Your task to perform on an android device: toggle data saver in the chrome app Image 0: 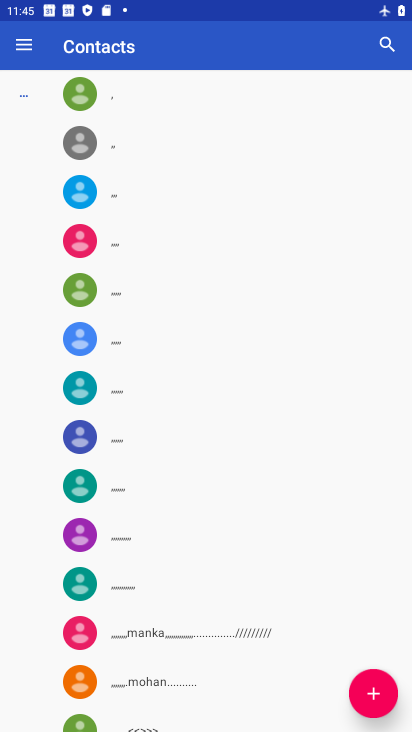
Step 0: press home button
Your task to perform on an android device: toggle data saver in the chrome app Image 1: 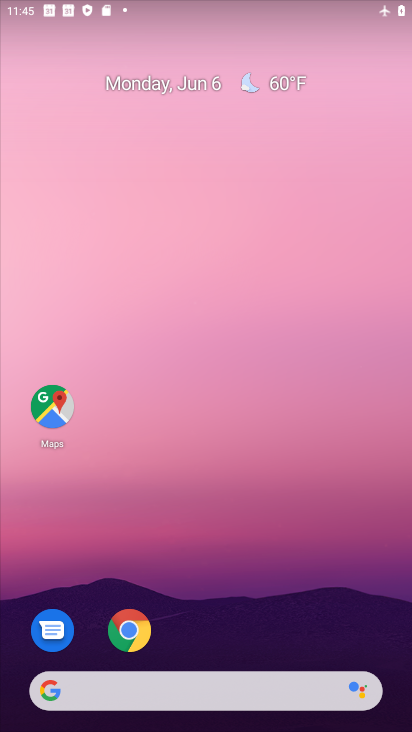
Step 1: drag from (387, 641) to (241, 67)
Your task to perform on an android device: toggle data saver in the chrome app Image 2: 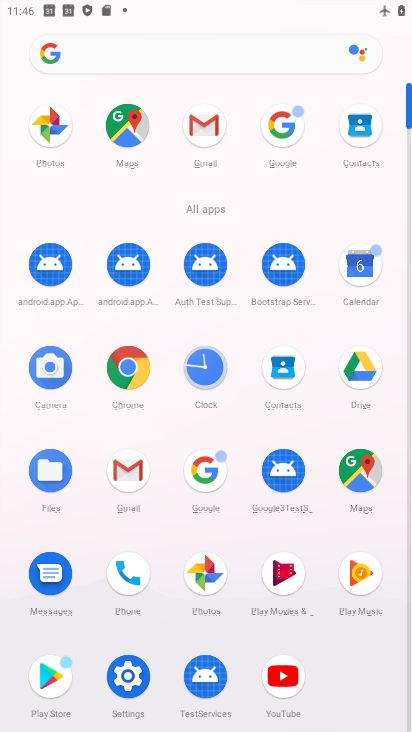
Step 2: click (129, 383)
Your task to perform on an android device: toggle data saver in the chrome app Image 3: 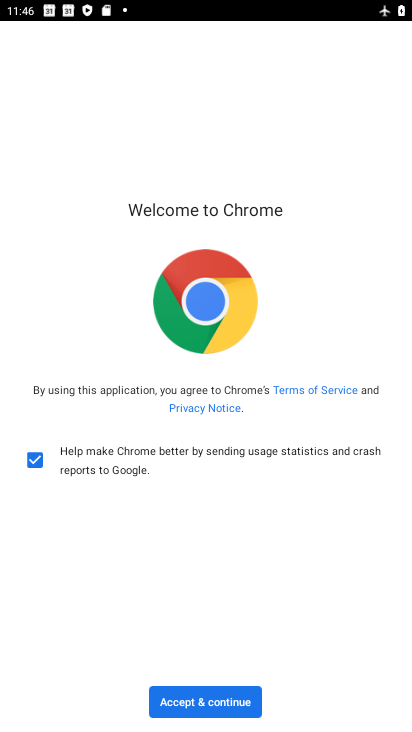
Step 3: click (213, 705)
Your task to perform on an android device: toggle data saver in the chrome app Image 4: 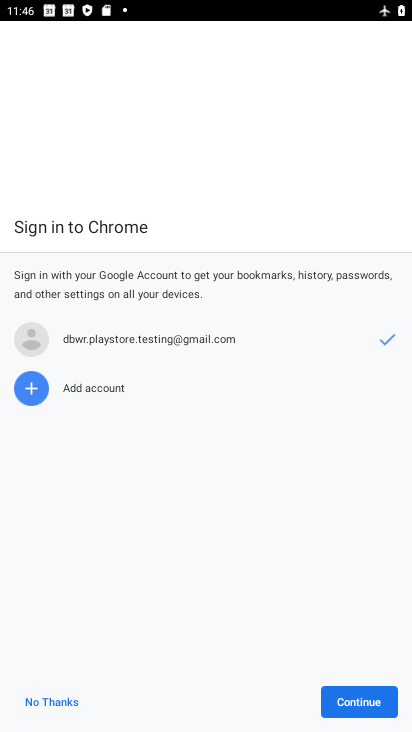
Step 4: click (348, 698)
Your task to perform on an android device: toggle data saver in the chrome app Image 5: 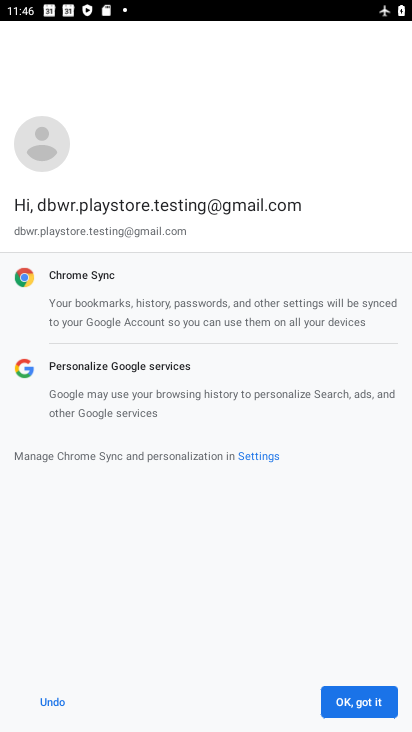
Step 5: click (348, 698)
Your task to perform on an android device: toggle data saver in the chrome app Image 6: 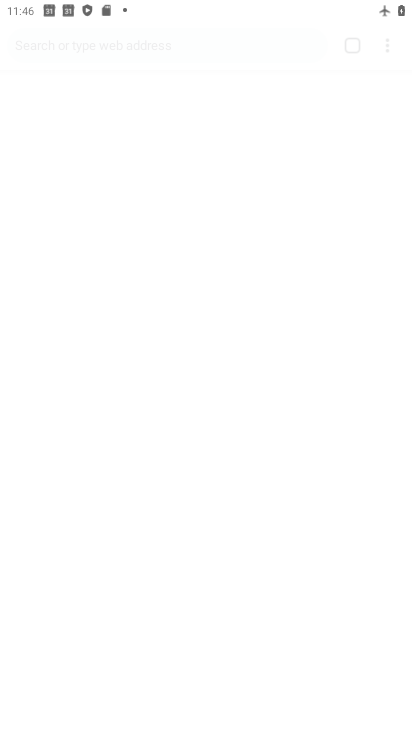
Step 6: click (348, 698)
Your task to perform on an android device: toggle data saver in the chrome app Image 7: 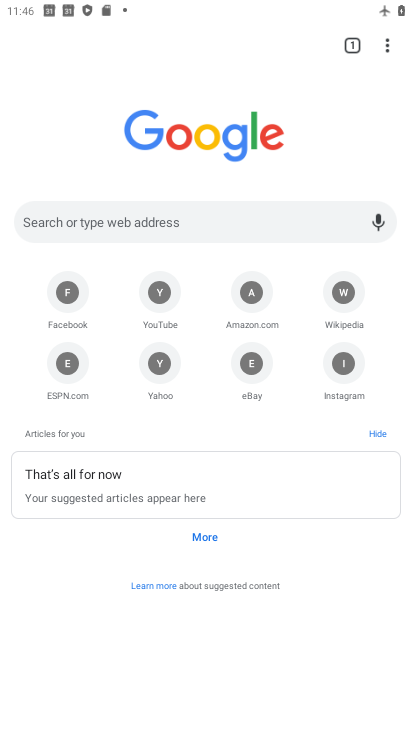
Step 7: click (386, 37)
Your task to perform on an android device: toggle data saver in the chrome app Image 8: 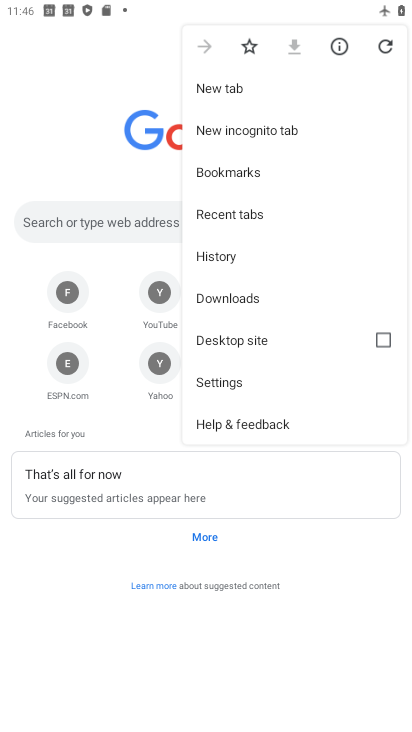
Step 8: click (202, 380)
Your task to perform on an android device: toggle data saver in the chrome app Image 9: 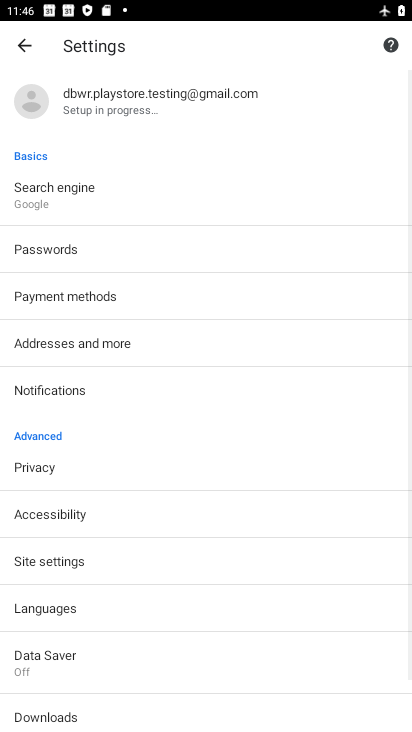
Step 9: click (87, 670)
Your task to perform on an android device: toggle data saver in the chrome app Image 10: 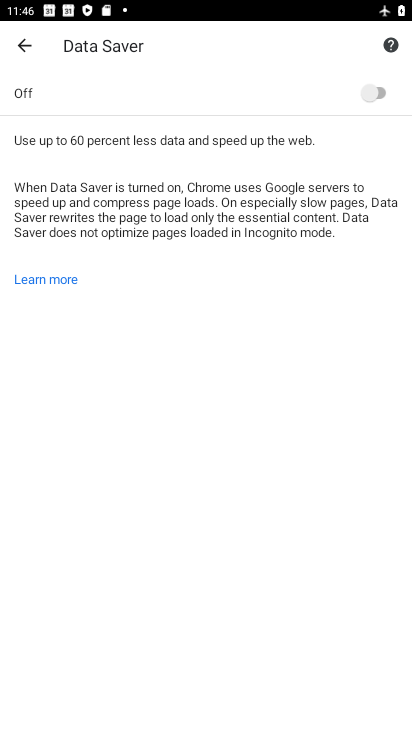
Step 10: click (367, 89)
Your task to perform on an android device: toggle data saver in the chrome app Image 11: 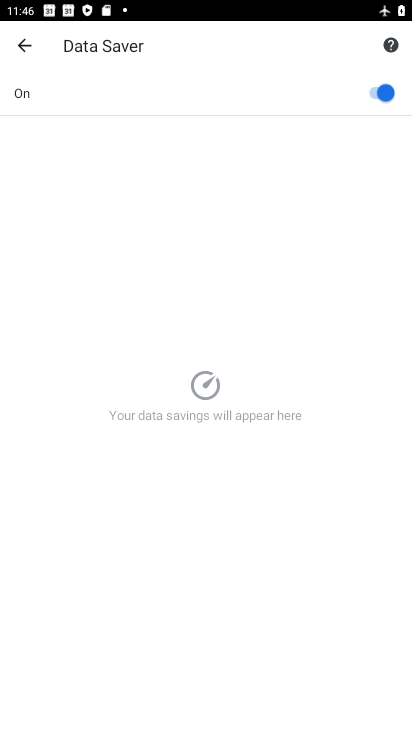
Step 11: task complete